Your task to perform on an android device: Open calendar and show me the second week of next month Image 0: 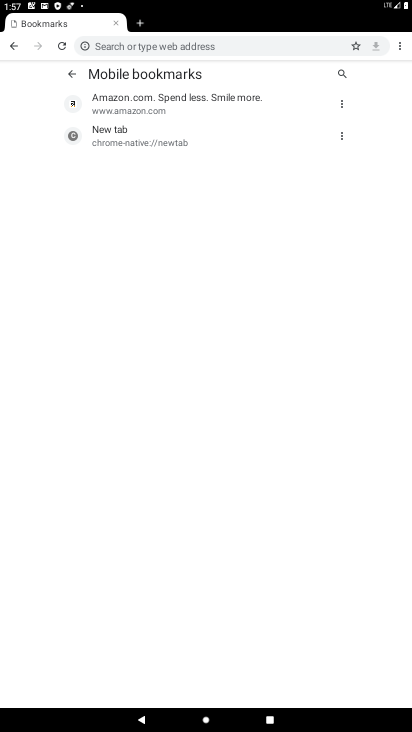
Step 0: press home button
Your task to perform on an android device: Open calendar and show me the second week of next month Image 1: 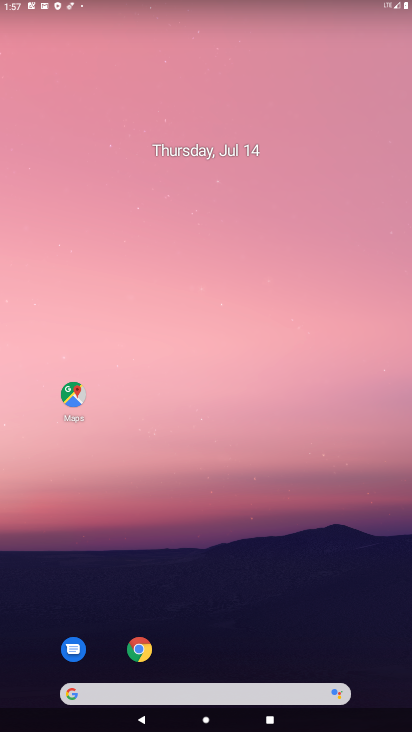
Step 1: drag from (377, 674) to (238, 111)
Your task to perform on an android device: Open calendar and show me the second week of next month Image 2: 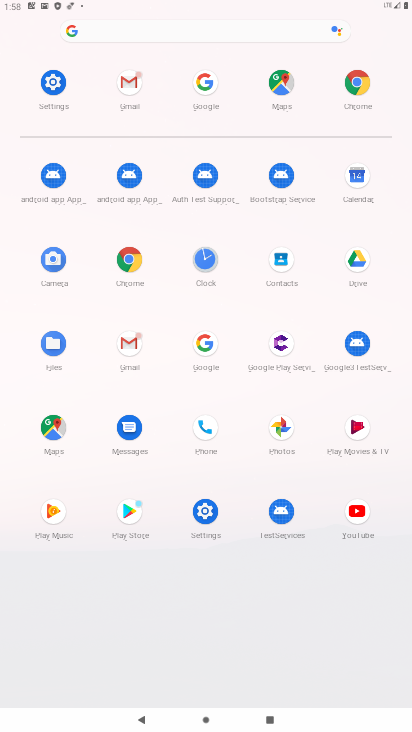
Step 2: click (357, 168)
Your task to perform on an android device: Open calendar and show me the second week of next month Image 3: 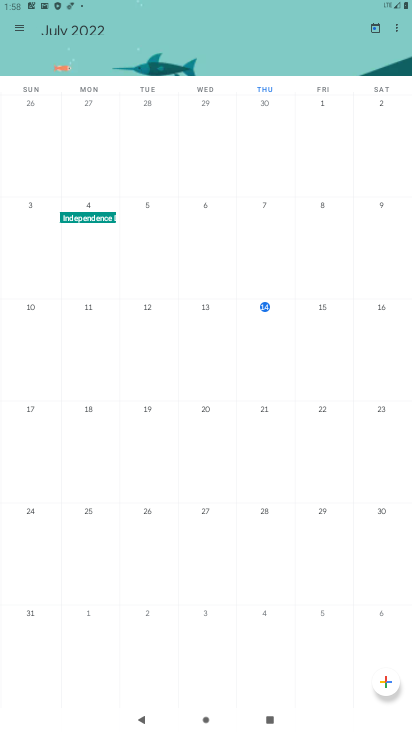
Step 3: drag from (388, 303) to (78, 440)
Your task to perform on an android device: Open calendar and show me the second week of next month Image 4: 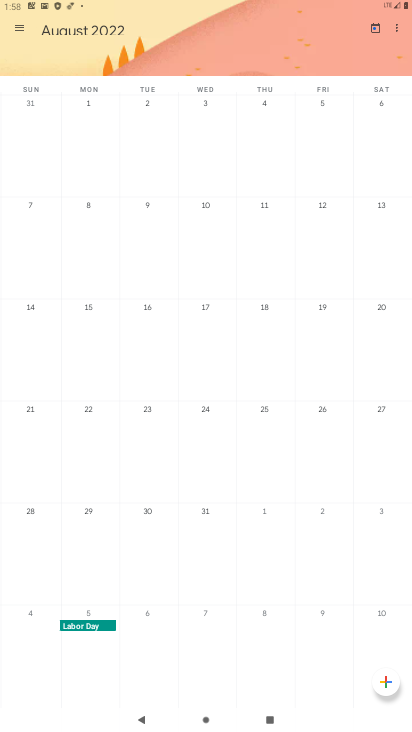
Step 4: click (43, 214)
Your task to perform on an android device: Open calendar and show me the second week of next month Image 5: 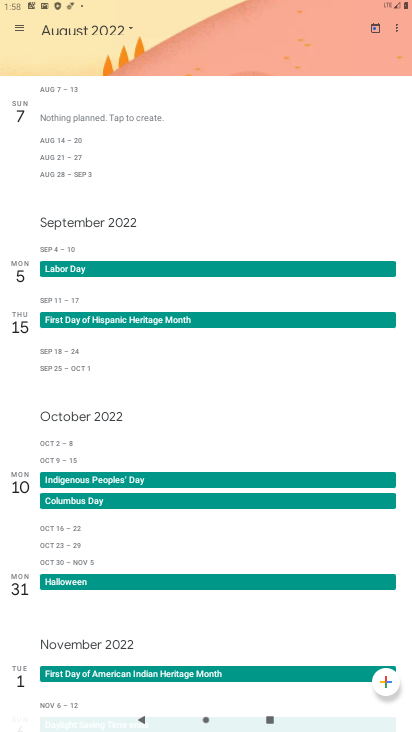
Step 5: task complete